Your task to perform on an android device: change notifications settings Image 0: 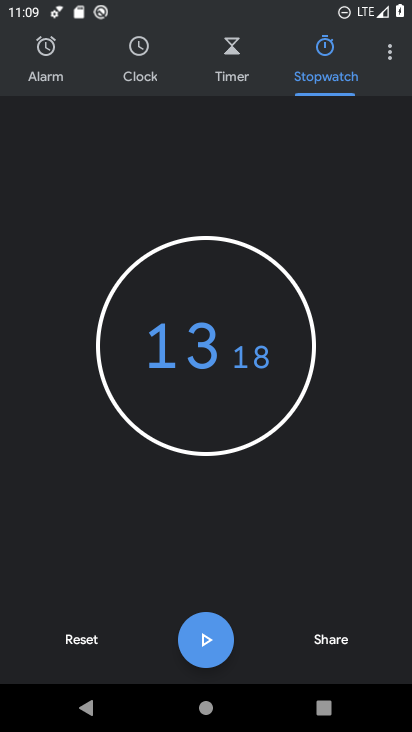
Step 0: press back button
Your task to perform on an android device: change notifications settings Image 1: 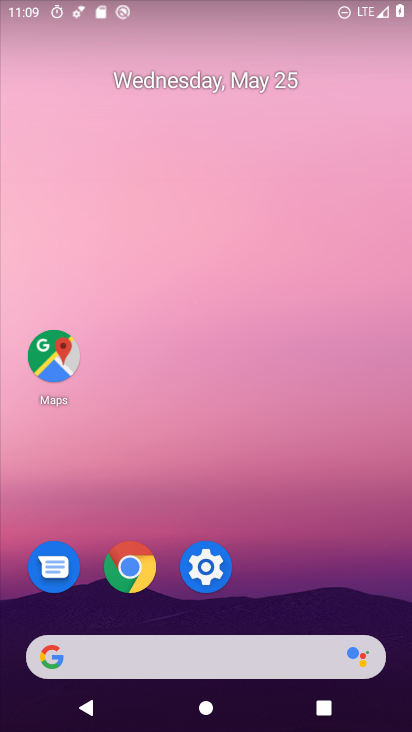
Step 1: drag from (266, 687) to (197, 27)
Your task to perform on an android device: change notifications settings Image 2: 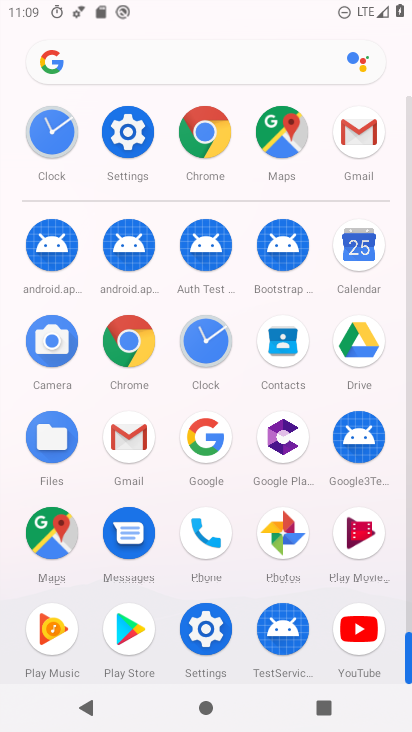
Step 2: click (120, 145)
Your task to perform on an android device: change notifications settings Image 3: 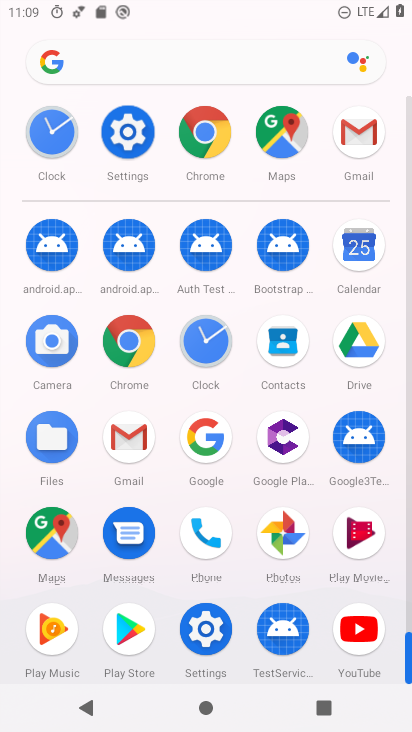
Step 3: click (121, 144)
Your task to perform on an android device: change notifications settings Image 4: 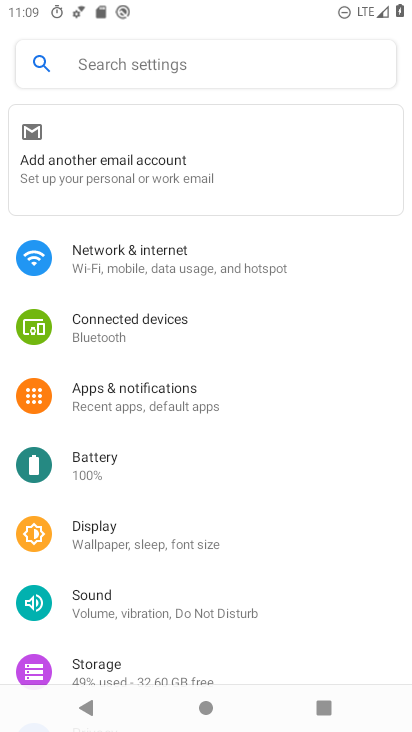
Step 4: click (131, 391)
Your task to perform on an android device: change notifications settings Image 5: 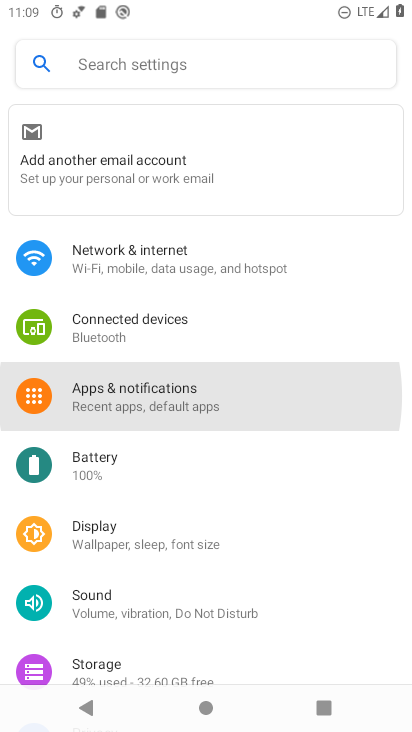
Step 5: click (130, 390)
Your task to perform on an android device: change notifications settings Image 6: 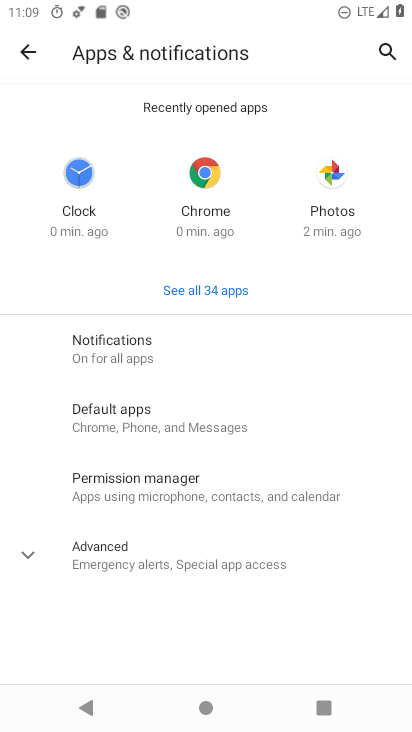
Step 6: click (101, 347)
Your task to perform on an android device: change notifications settings Image 7: 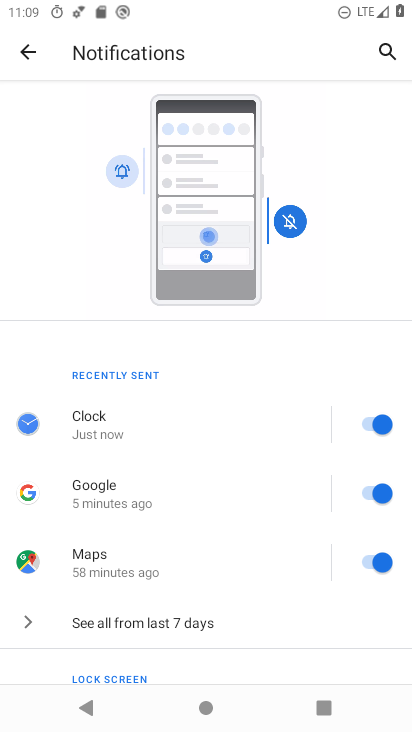
Step 7: click (21, 51)
Your task to perform on an android device: change notifications settings Image 8: 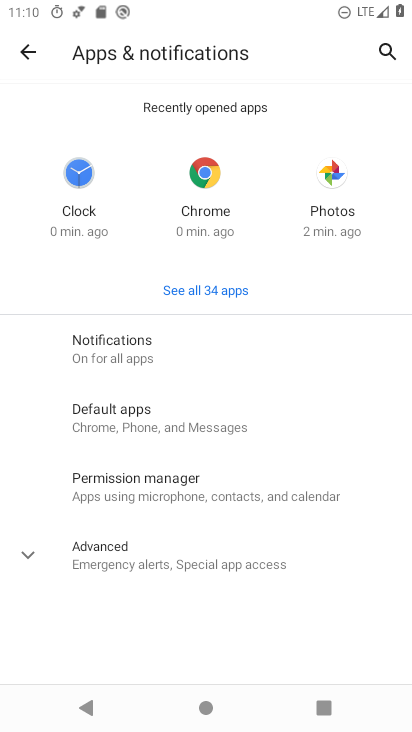
Step 8: drag from (142, 246) to (126, 101)
Your task to perform on an android device: change notifications settings Image 9: 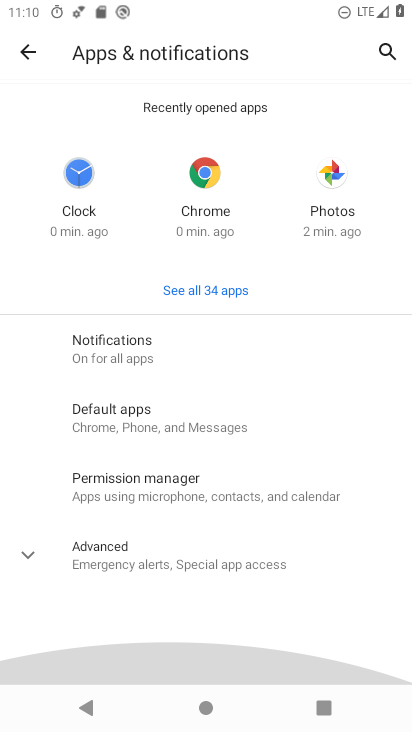
Step 9: drag from (166, 438) to (133, 130)
Your task to perform on an android device: change notifications settings Image 10: 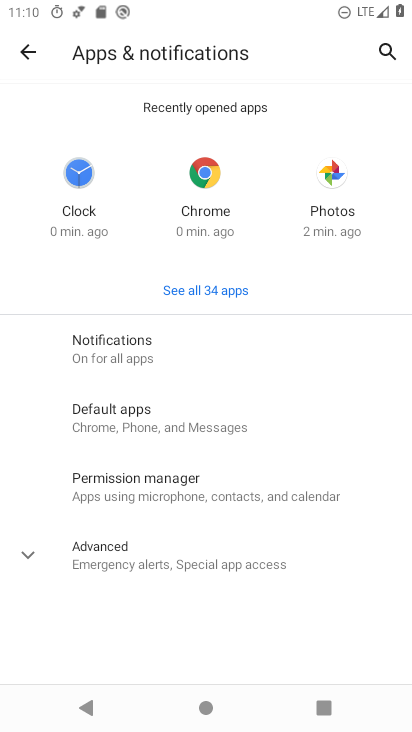
Step 10: click (177, 90)
Your task to perform on an android device: change notifications settings Image 11: 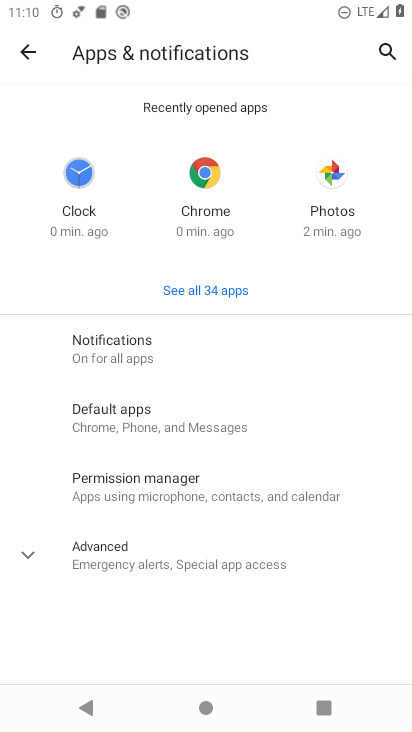
Step 11: click (99, 336)
Your task to perform on an android device: change notifications settings Image 12: 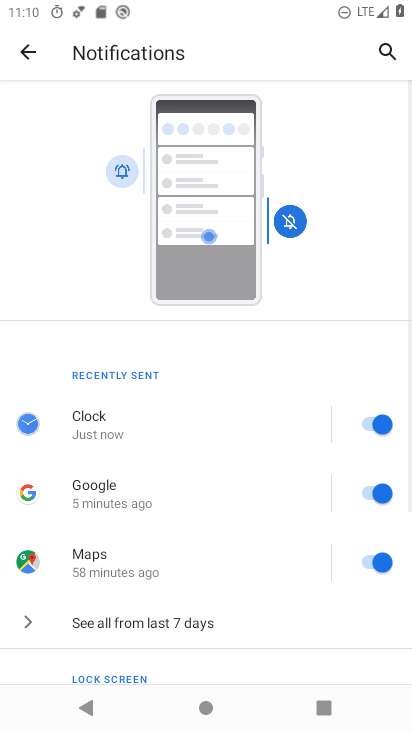
Step 12: task complete